Your task to perform on an android device: allow notifications from all sites in the chrome app Image 0: 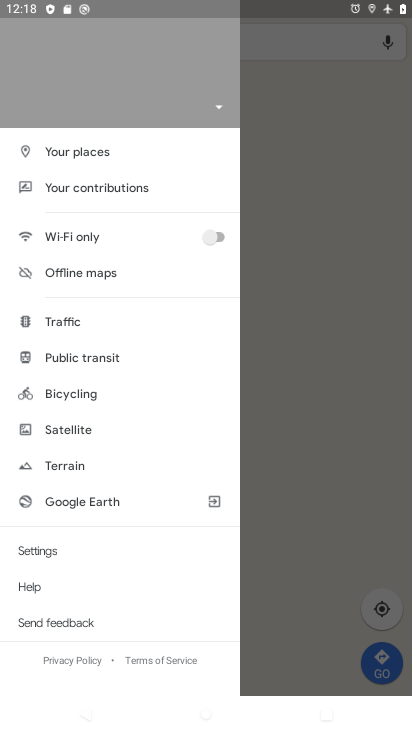
Step 0: press home button
Your task to perform on an android device: allow notifications from all sites in the chrome app Image 1: 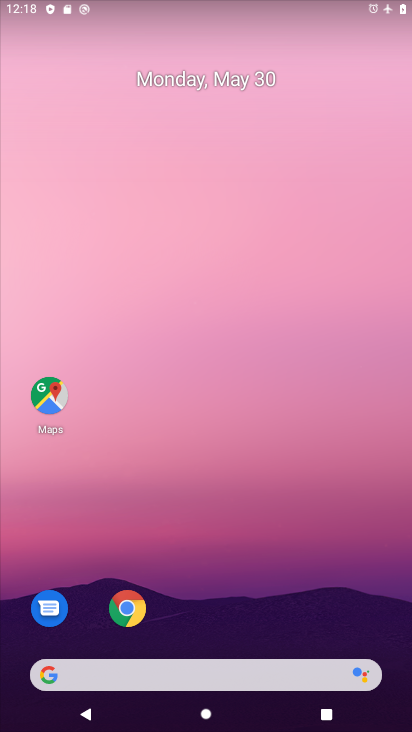
Step 1: click (134, 604)
Your task to perform on an android device: allow notifications from all sites in the chrome app Image 2: 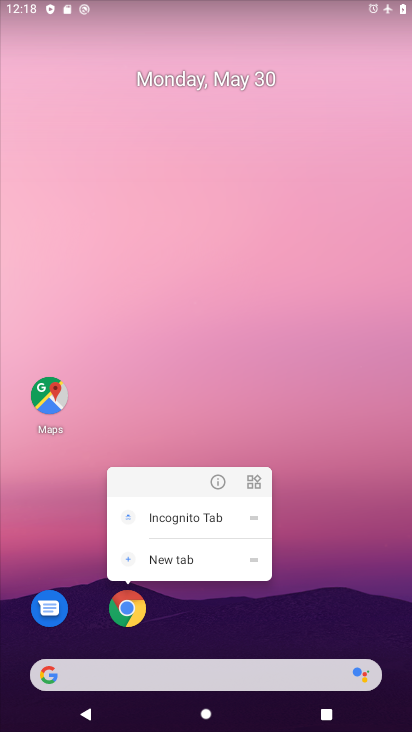
Step 2: click (148, 609)
Your task to perform on an android device: allow notifications from all sites in the chrome app Image 3: 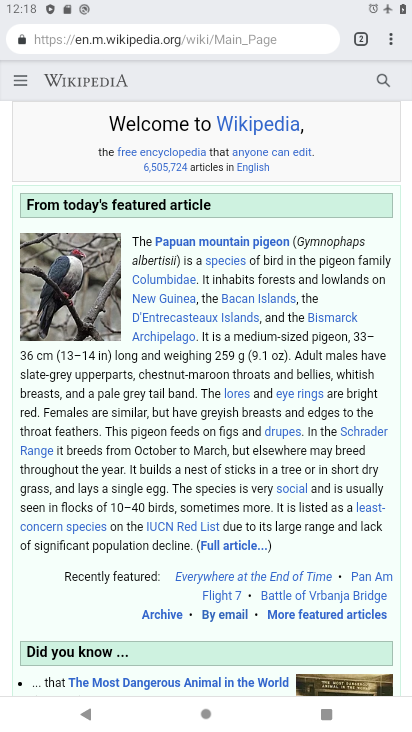
Step 3: click (393, 43)
Your task to perform on an android device: allow notifications from all sites in the chrome app Image 4: 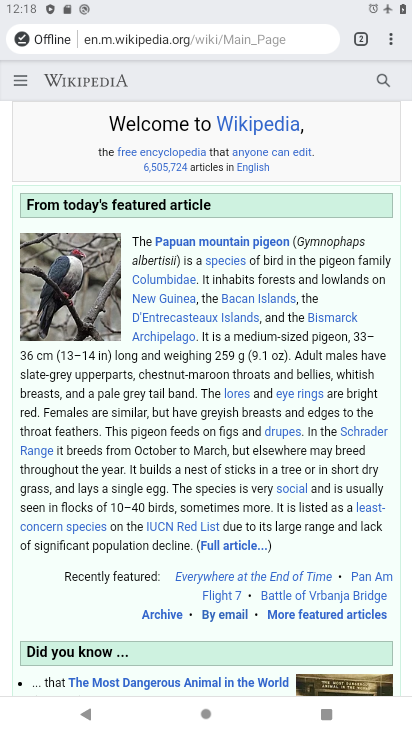
Step 4: drag from (394, 47) to (280, 427)
Your task to perform on an android device: allow notifications from all sites in the chrome app Image 5: 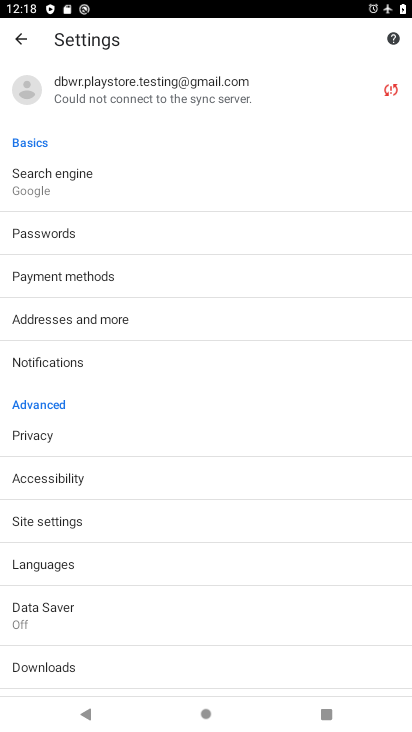
Step 5: click (24, 507)
Your task to perform on an android device: allow notifications from all sites in the chrome app Image 6: 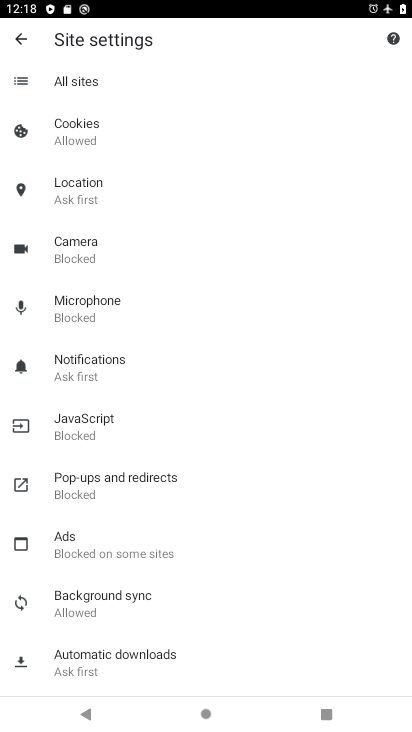
Step 6: click (108, 364)
Your task to perform on an android device: allow notifications from all sites in the chrome app Image 7: 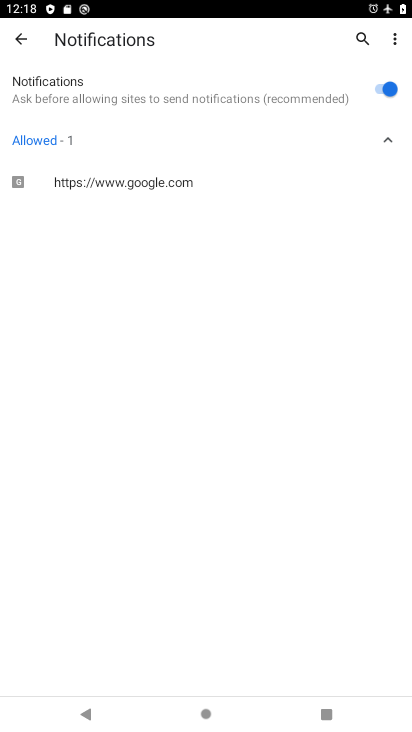
Step 7: task complete